Your task to perform on an android device: Add "asus zenbook" to the cart on newegg.com, then select checkout. Image 0: 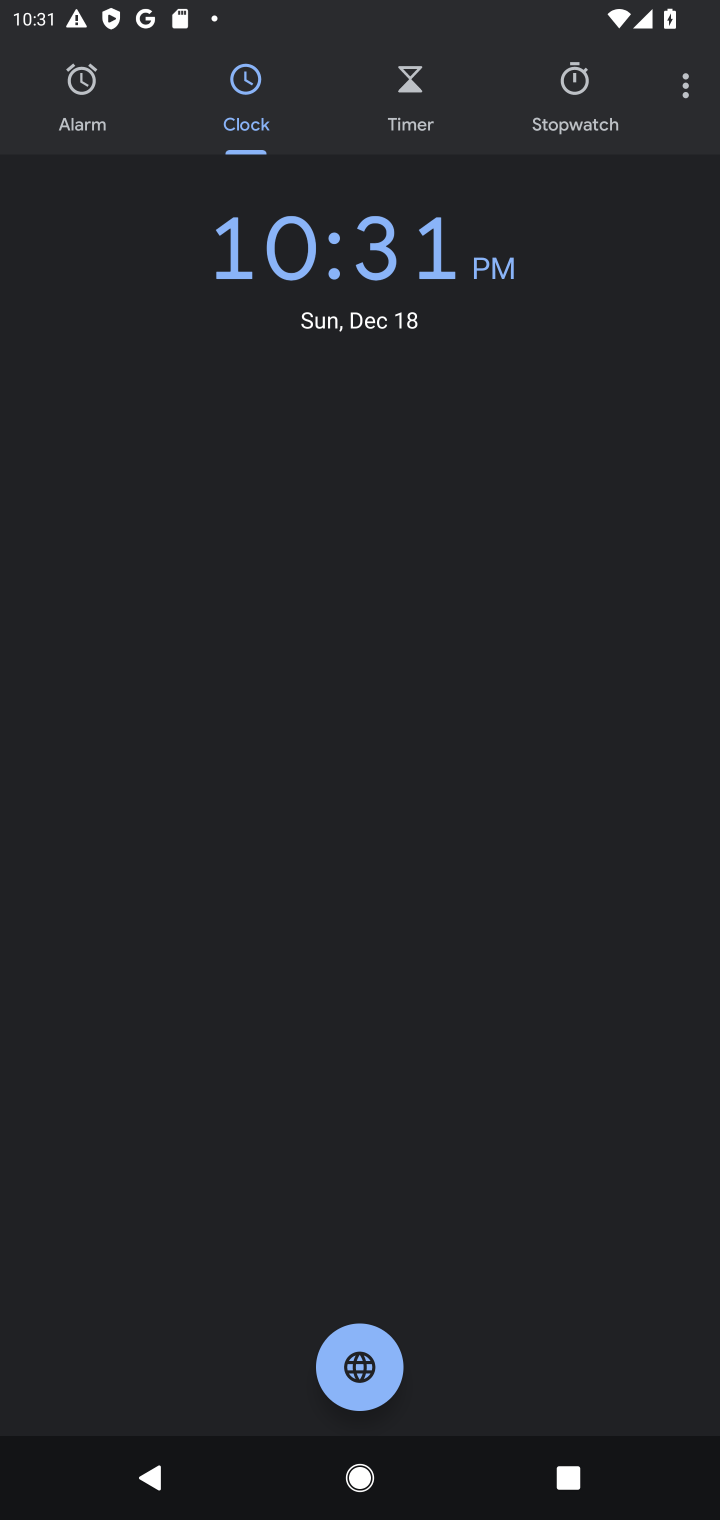
Step 0: press home button
Your task to perform on an android device: Add "asus zenbook" to the cart on newegg.com, then select checkout. Image 1: 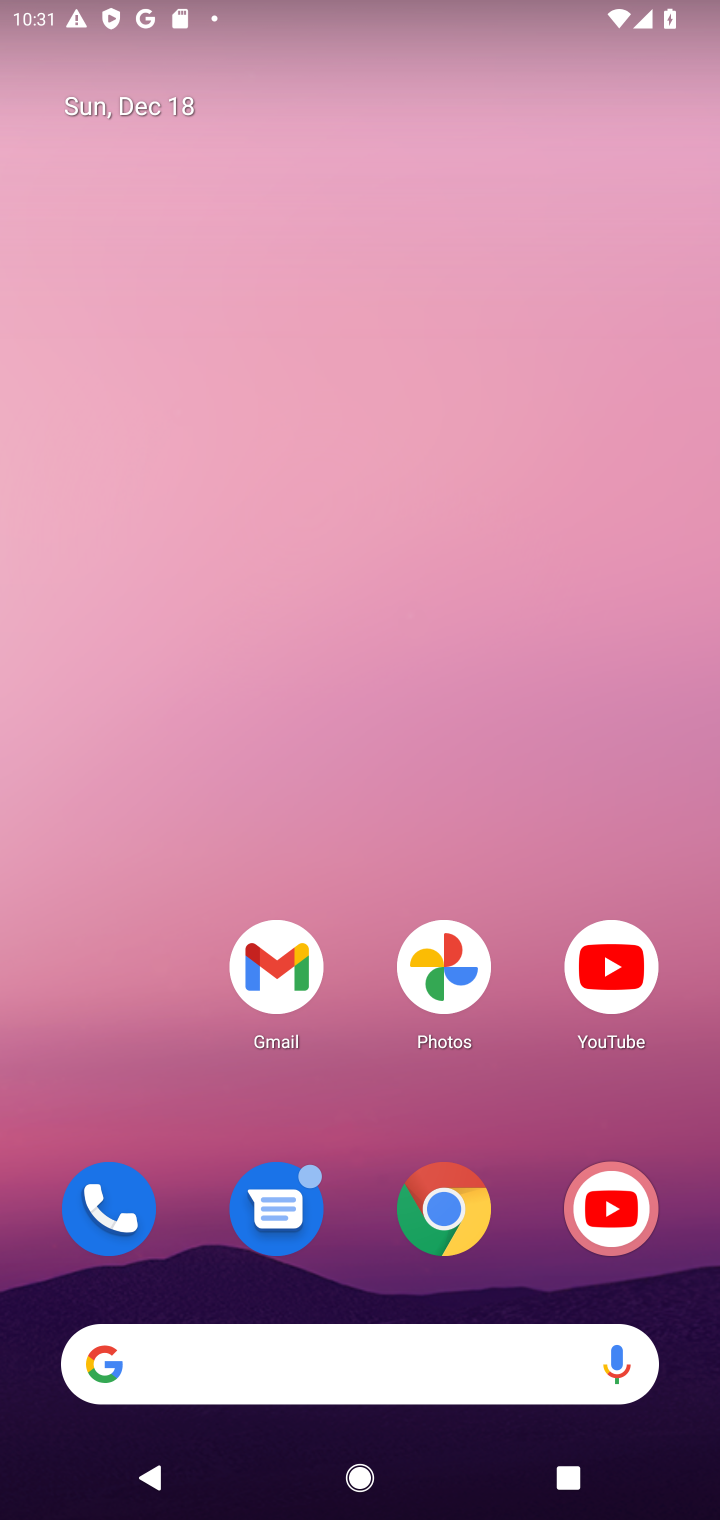
Step 1: click (439, 1219)
Your task to perform on an android device: Add "asus zenbook" to the cart on newegg.com, then select checkout. Image 2: 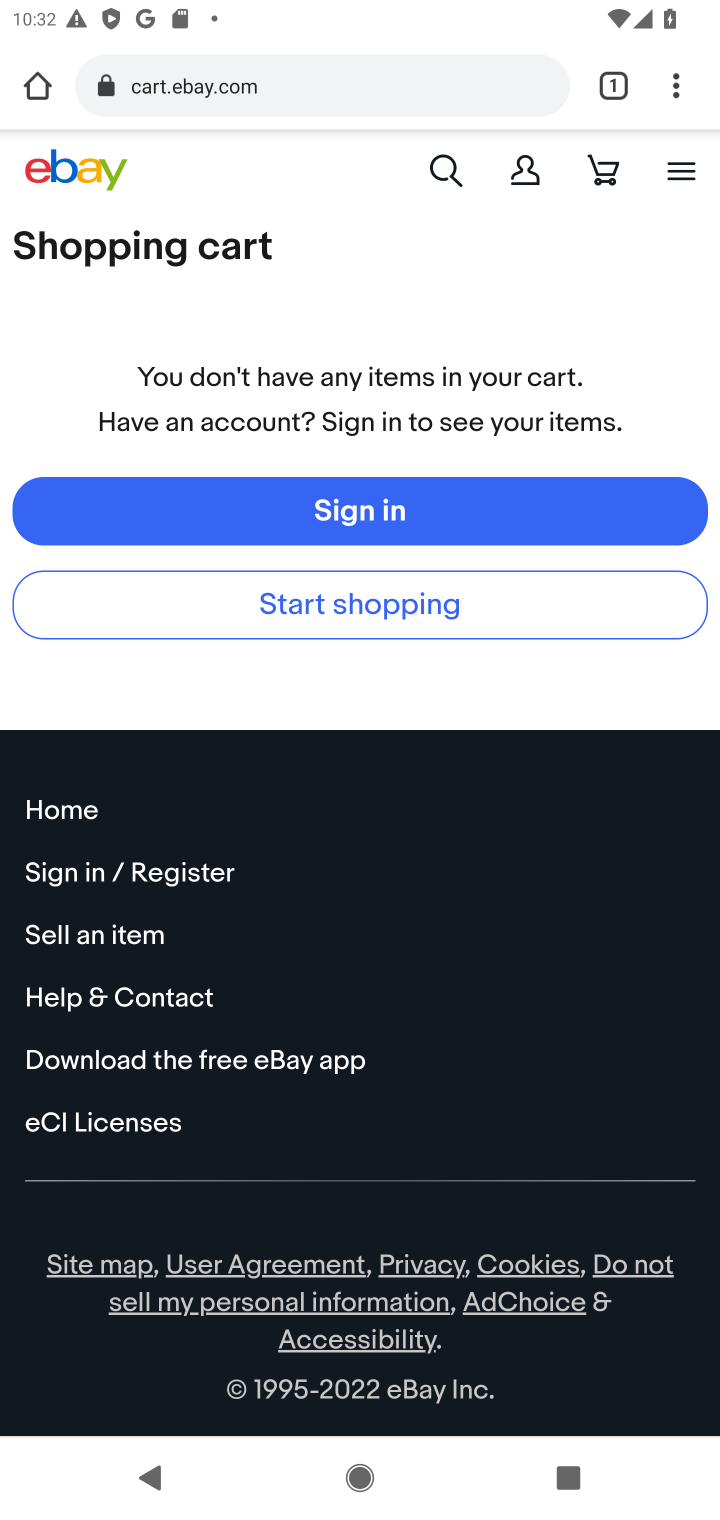
Step 2: click (270, 84)
Your task to perform on an android device: Add "asus zenbook" to the cart on newegg.com, then select checkout. Image 3: 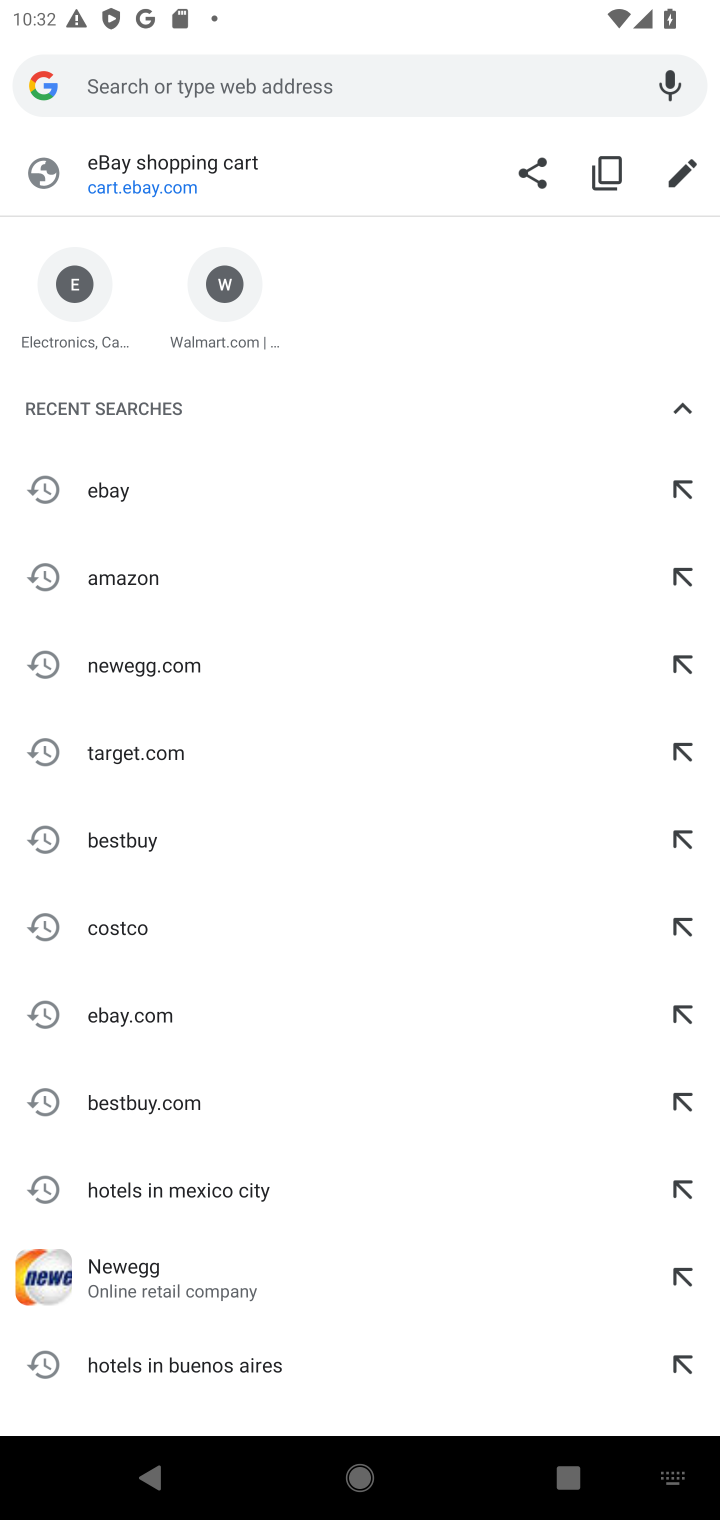
Step 3: type "NEWEGG"
Your task to perform on an android device: Add "asus zenbook" to the cart on newegg.com, then select checkout. Image 4: 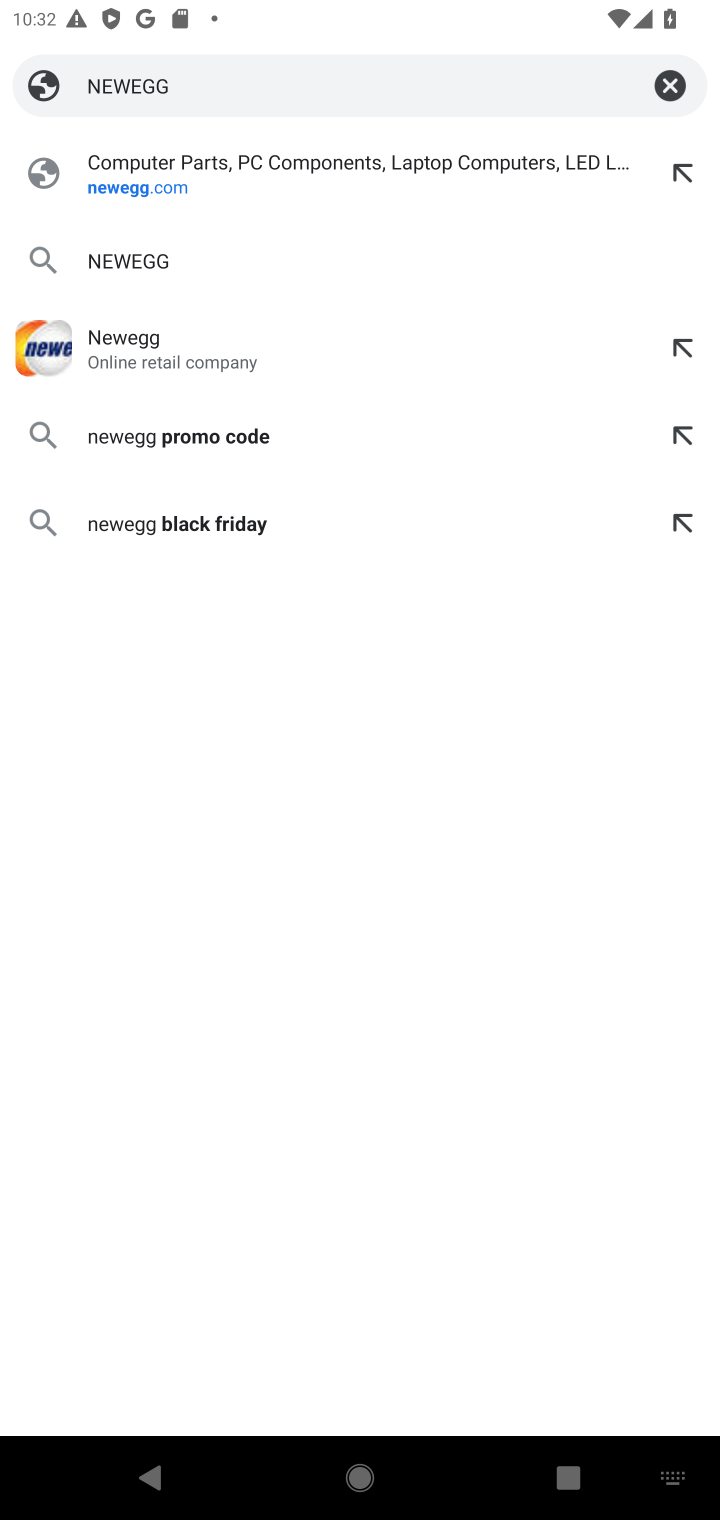
Step 4: click (156, 186)
Your task to perform on an android device: Add "asus zenbook" to the cart on newegg.com, then select checkout. Image 5: 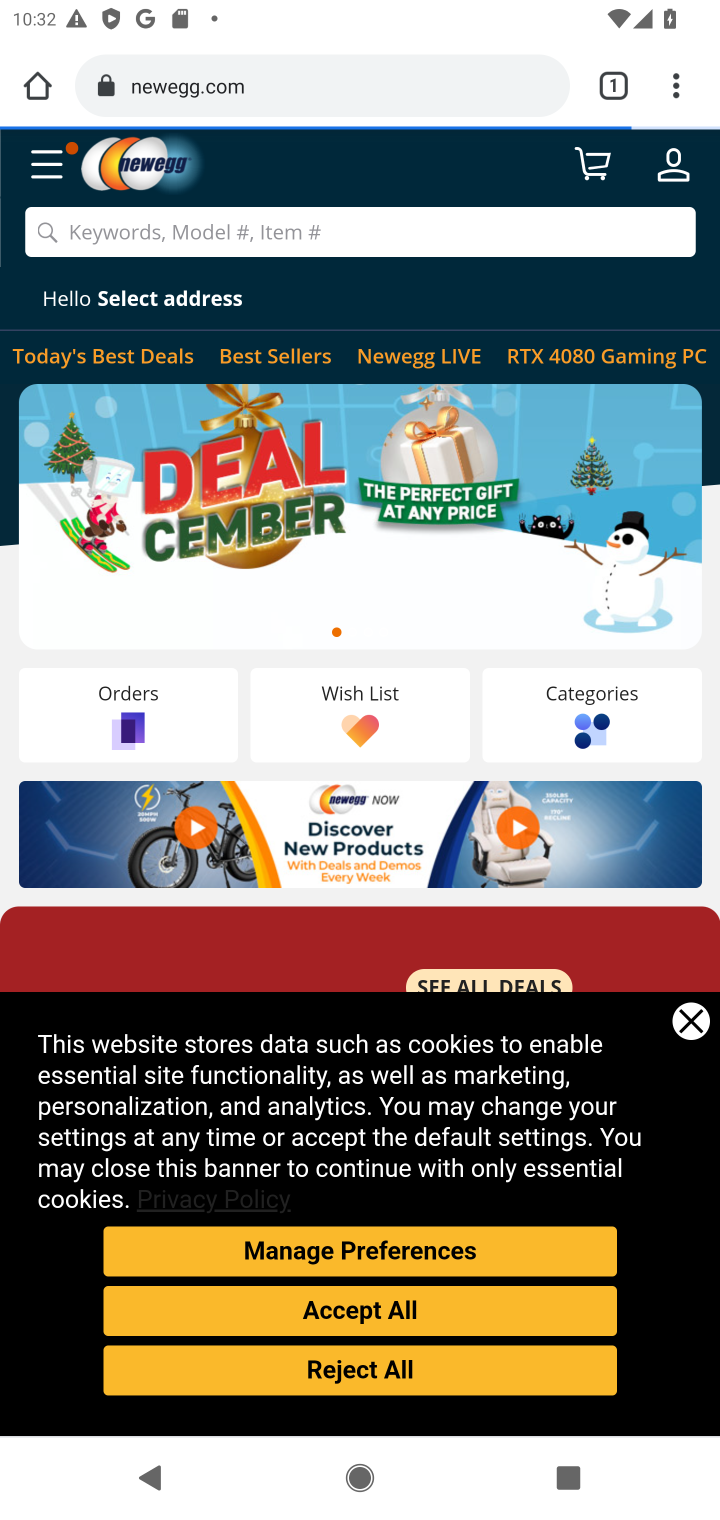
Step 5: click (381, 231)
Your task to perform on an android device: Add "asus zenbook" to the cart on newegg.com, then select checkout. Image 6: 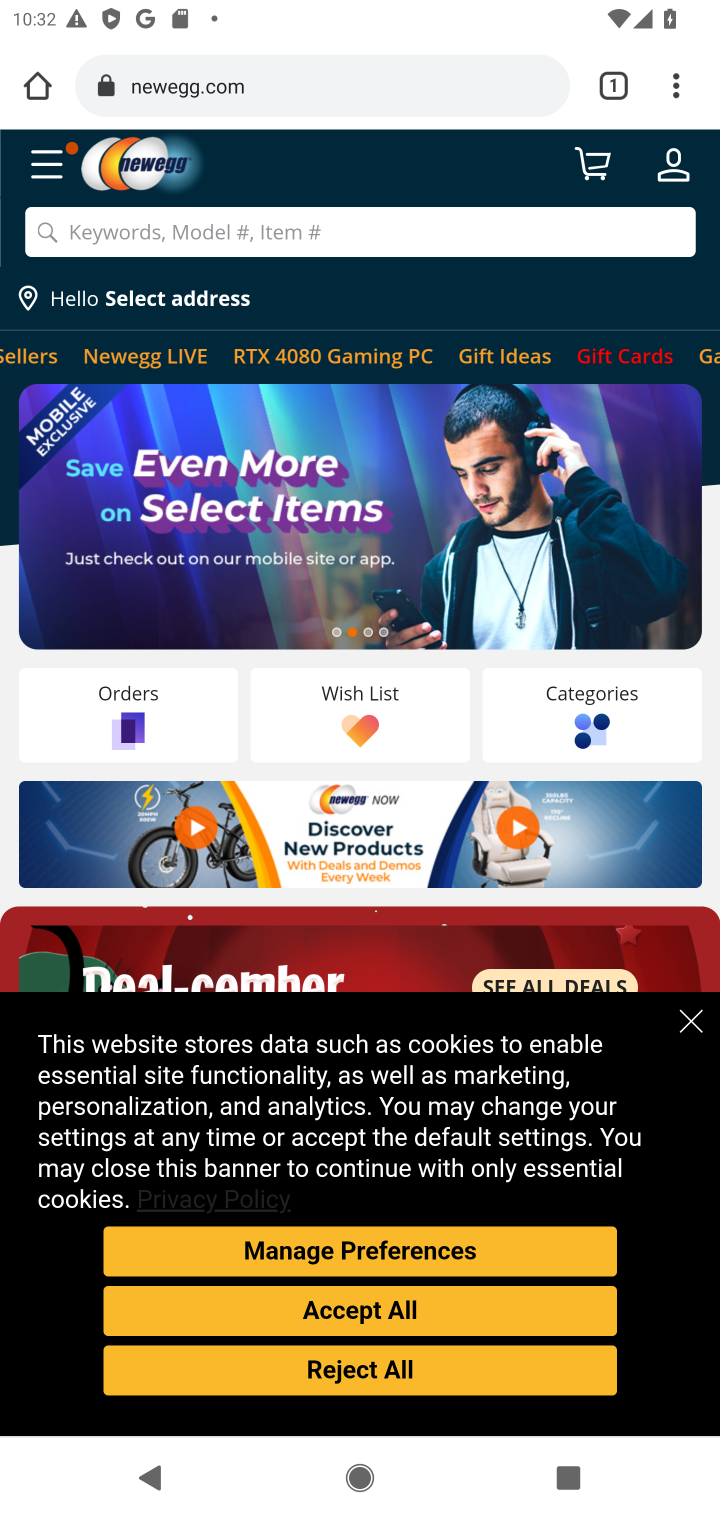
Step 6: click (686, 1030)
Your task to perform on an android device: Add "asus zenbook" to the cart on newegg.com, then select checkout. Image 7: 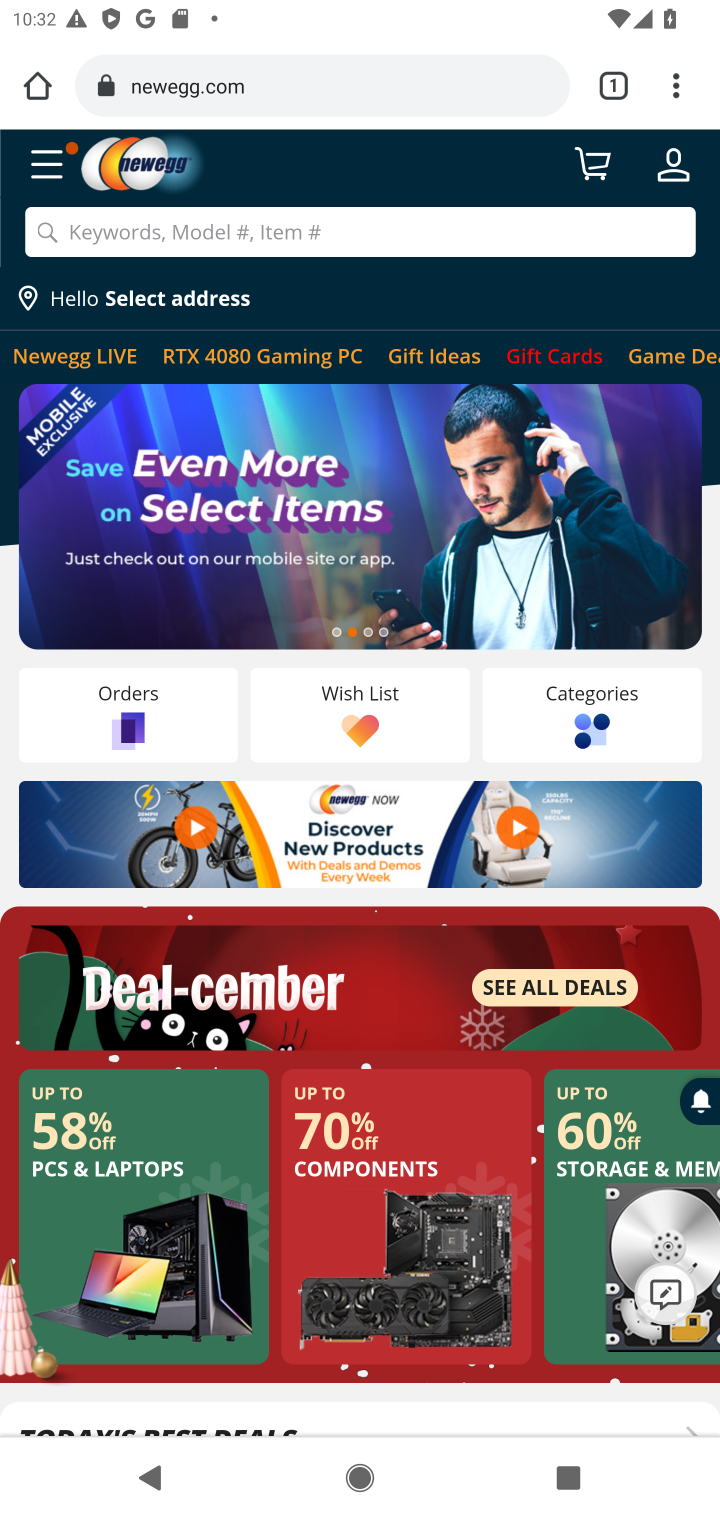
Step 7: click (266, 231)
Your task to perform on an android device: Add "asus zenbook" to the cart on newegg.com, then select checkout. Image 8: 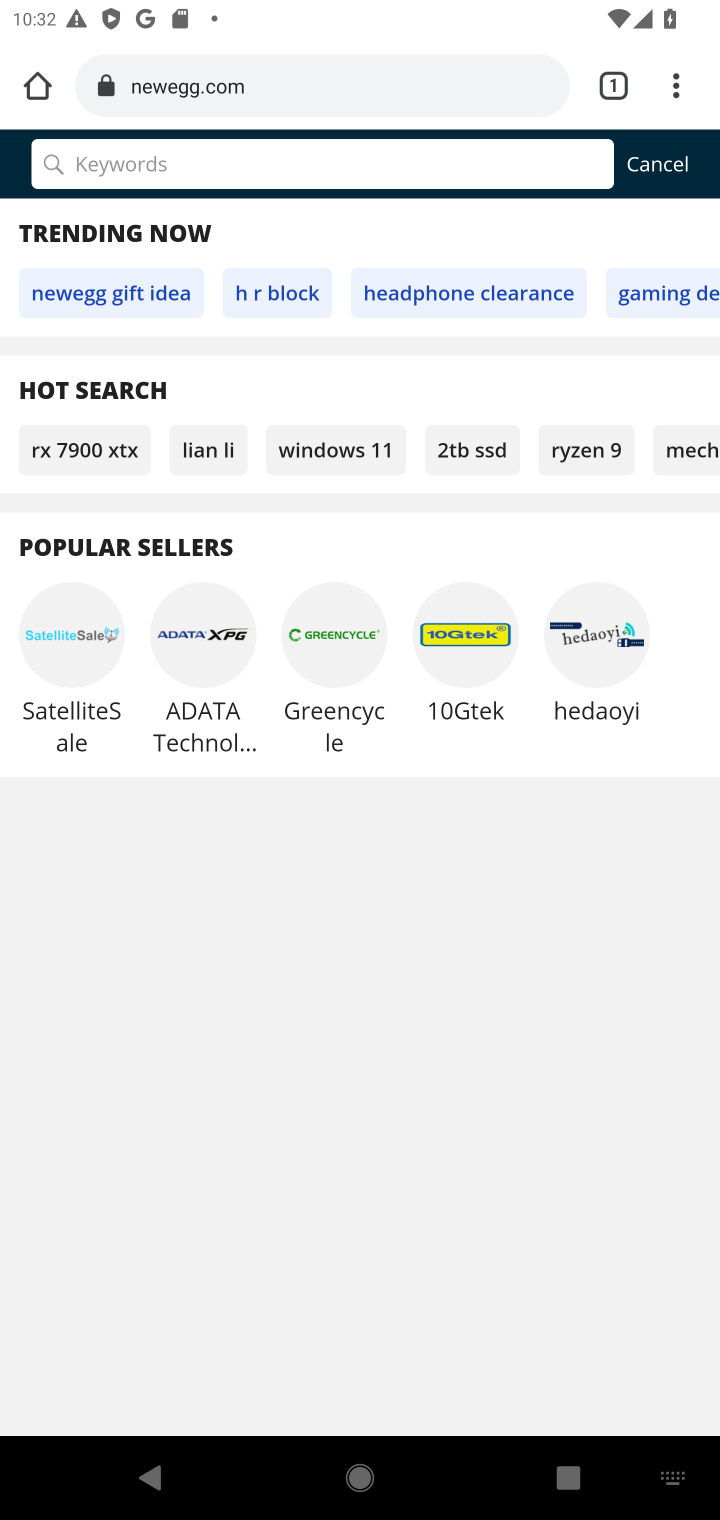
Step 8: type "ASUS ZENBOOK"
Your task to perform on an android device: Add "asus zenbook" to the cart on newegg.com, then select checkout. Image 9: 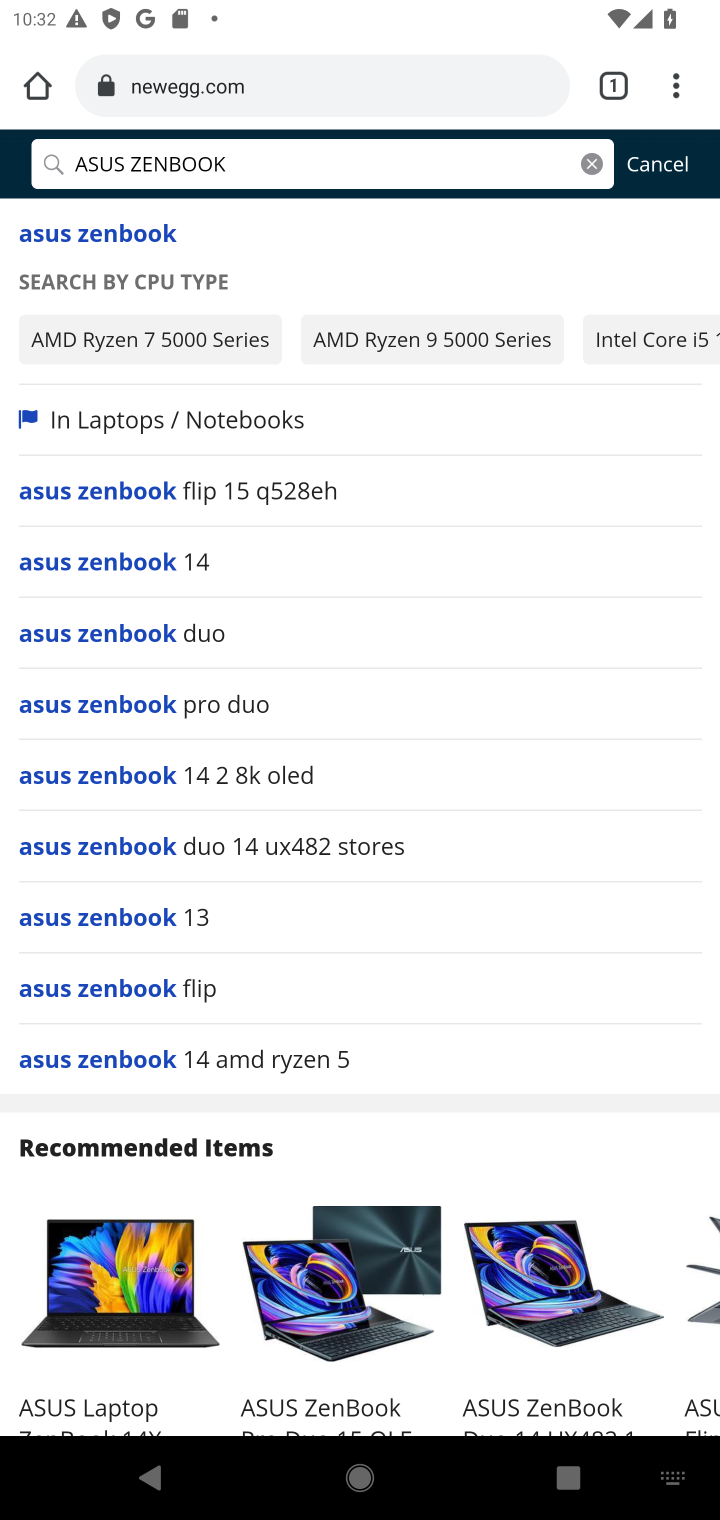
Step 9: click (109, 232)
Your task to perform on an android device: Add "asus zenbook" to the cart on newegg.com, then select checkout. Image 10: 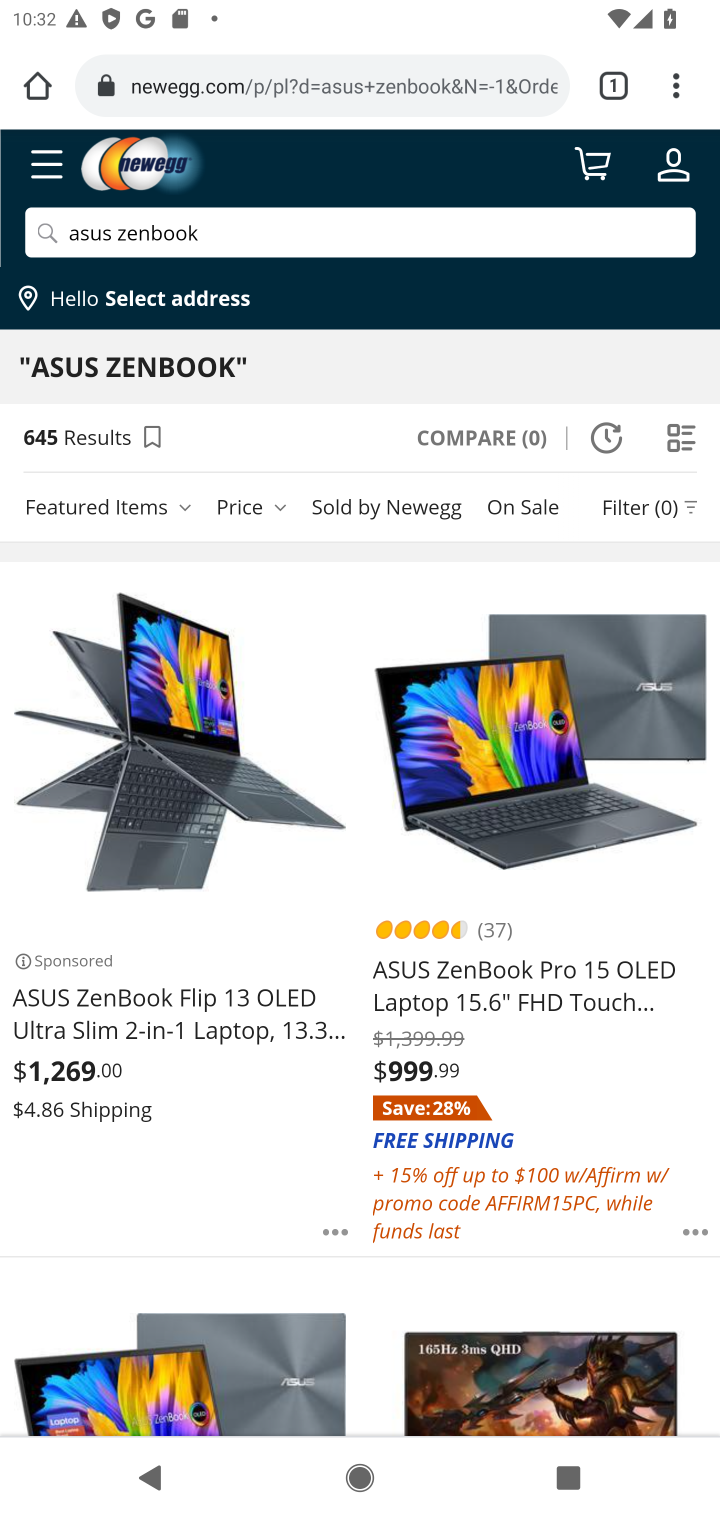
Step 10: click (177, 811)
Your task to perform on an android device: Add "asus zenbook" to the cart on newegg.com, then select checkout. Image 11: 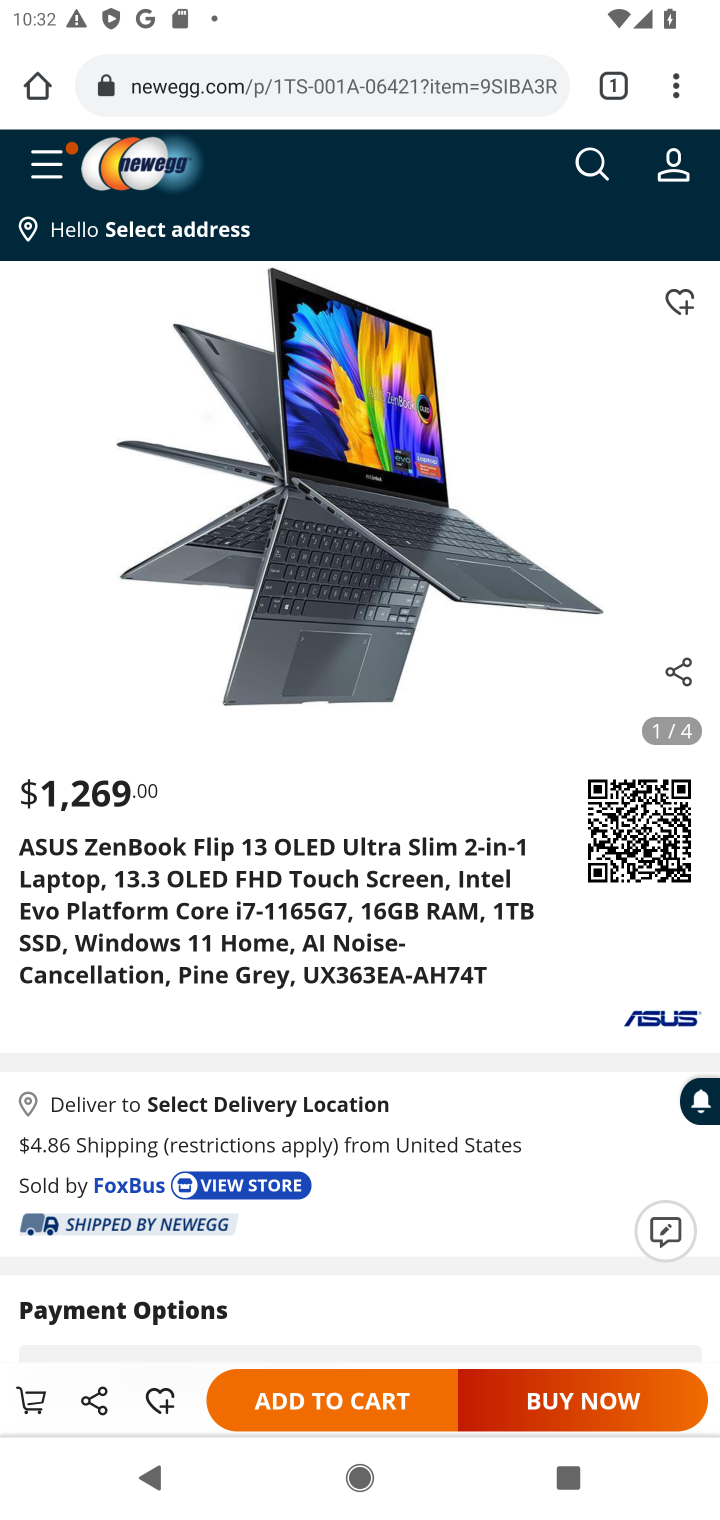
Step 11: click (312, 1402)
Your task to perform on an android device: Add "asus zenbook" to the cart on newegg.com, then select checkout. Image 12: 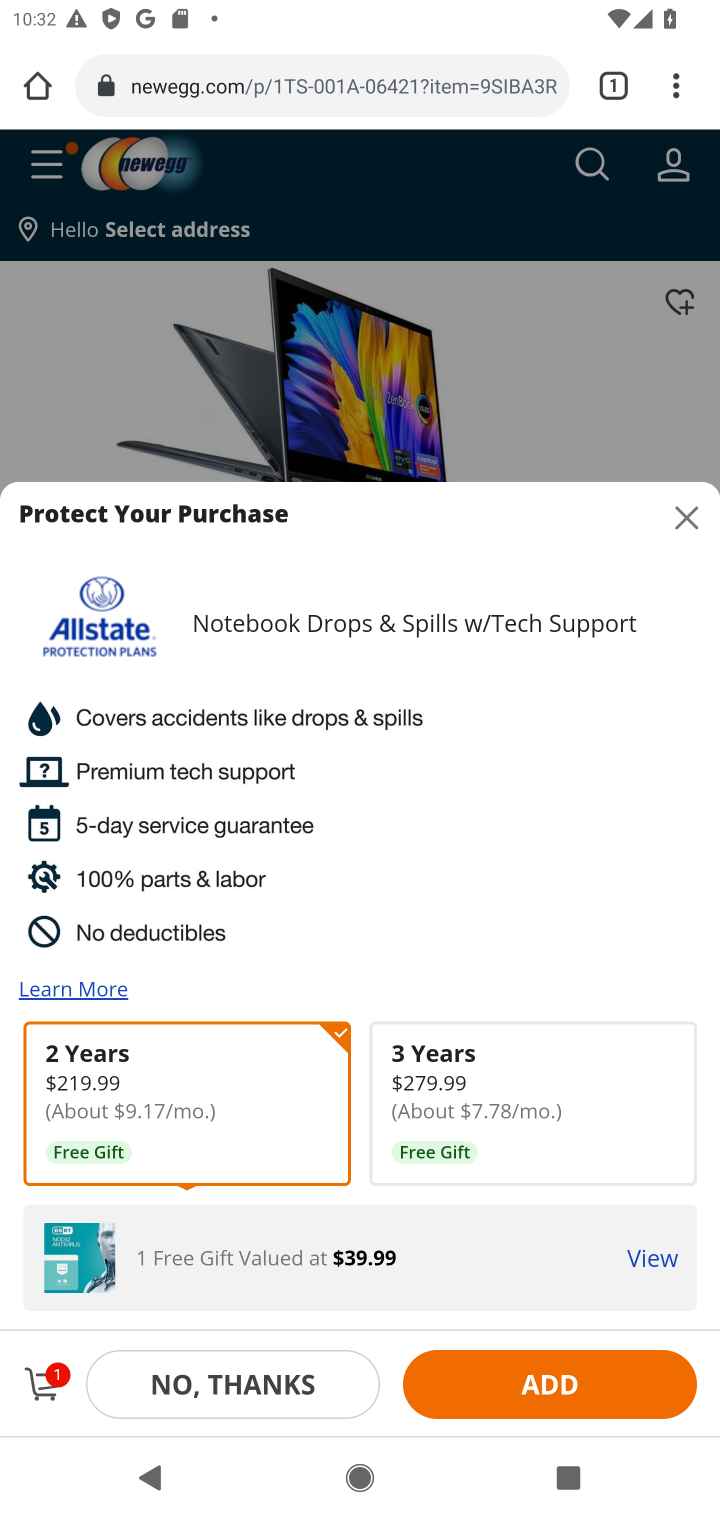
Step 12: click (44, 1377)
Your task to perform on an android device: Add "asus zenbook" to the cart on newegg.com, then select checkout. Image 13: 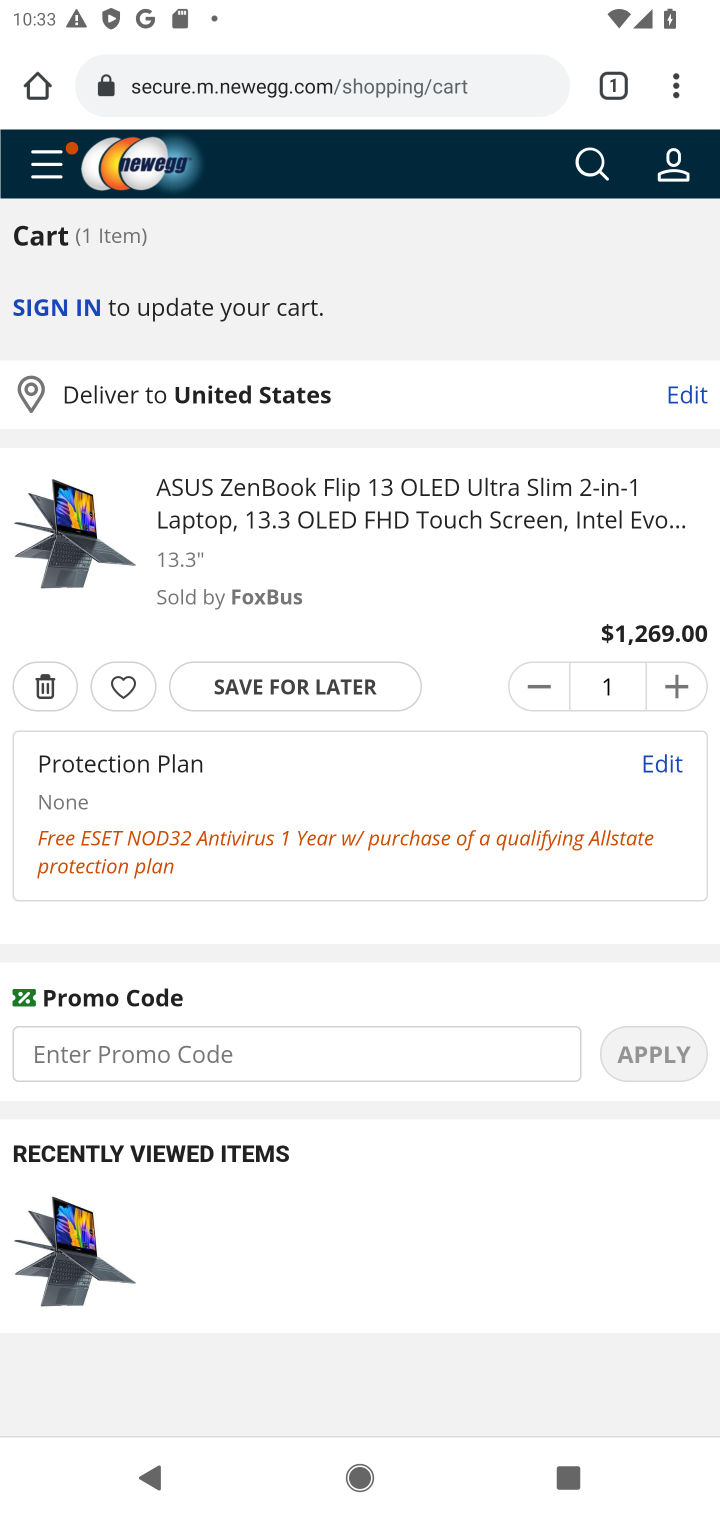
Step 13: click (378, 1206)
Your task to perform on an android device: Add "asus zenbook" to the cart on newegg.com, then select checkout. Image 14: 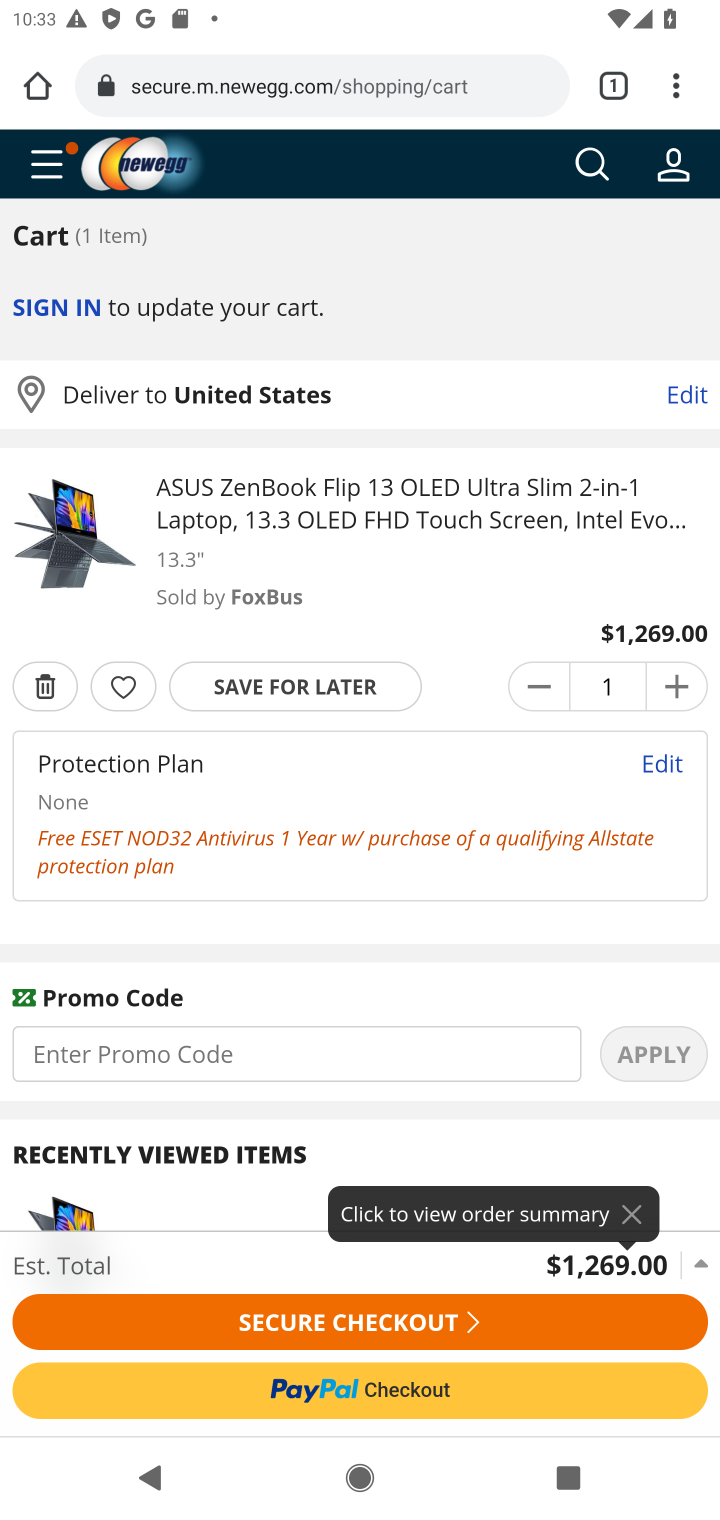
Step 14: click (345, 1320)
Your task to perform on an android device: Add "asus zenbook" to the cart on newegg.com, then select checkout. Image 15: 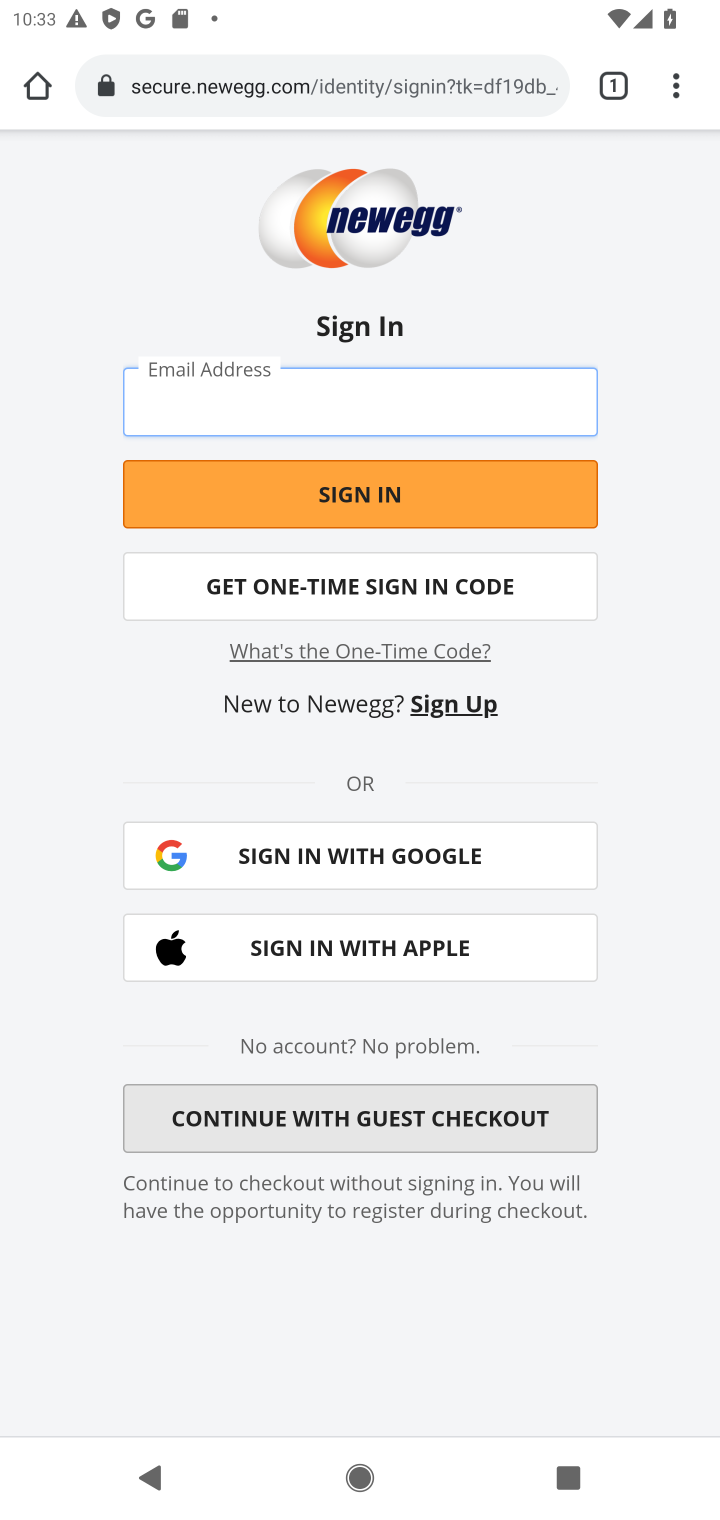
Step 15: task complete